Your task to perform on an android device: Open Wikipedia Image 0: 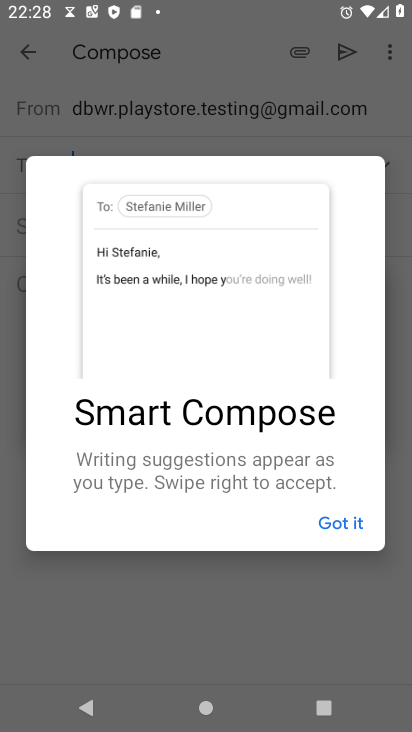
Step 0: press home button
Your task to perform on an android device: Open Wikipedia Image 1: 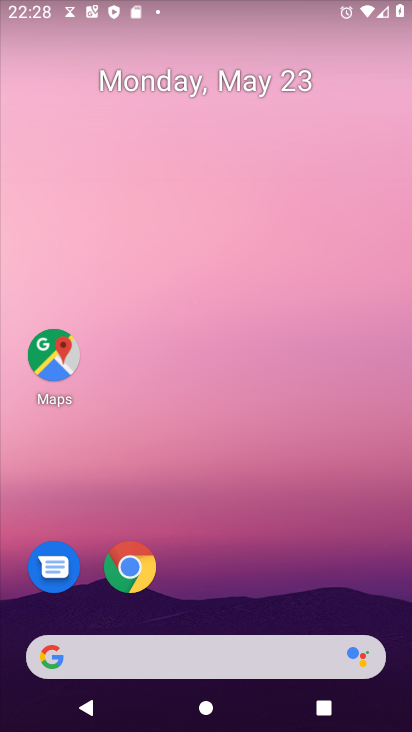
Step 1: click (128, 553)
Your task to perform on an android device: Open Wikipedia Image 2: 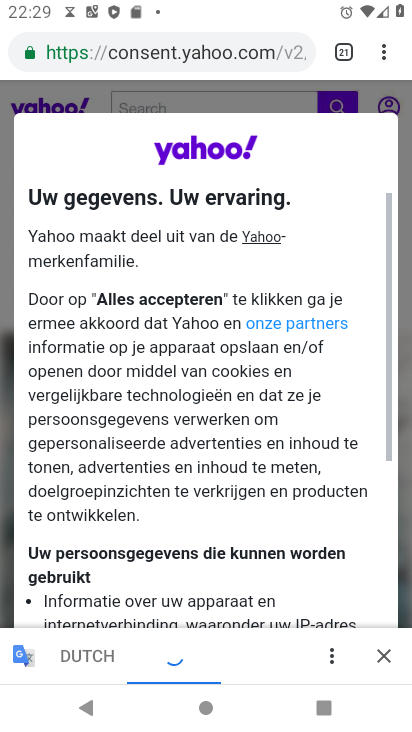
Step 2: click (381, 52)
Your task to perform on an android device: Open Wikipedia Image 3: 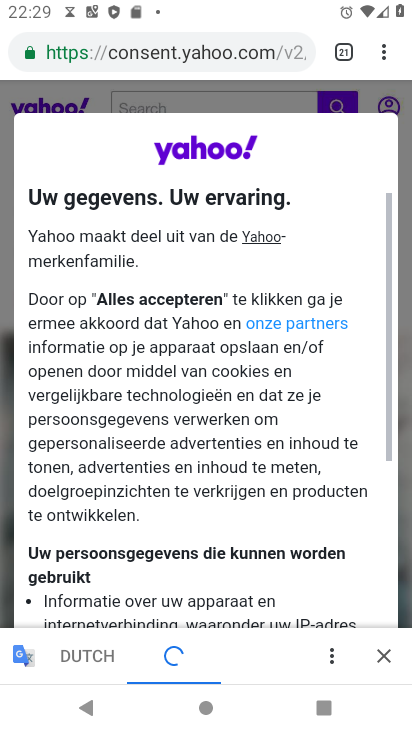
Step 3: click (402, 42)
Your task to perform on an android device: Open Wikipedia Image 4: 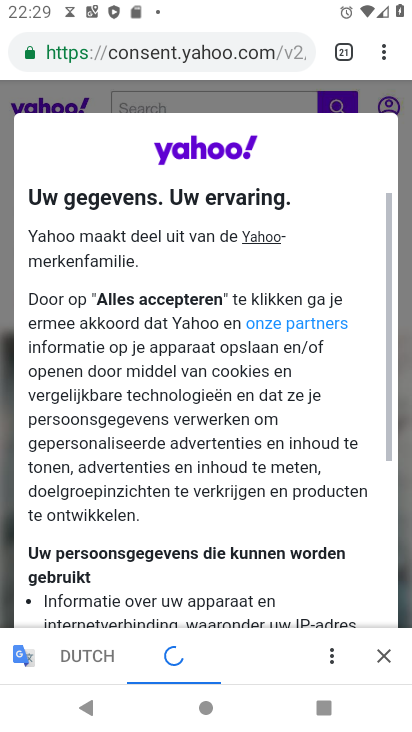
Step 4: click (376, 64)
Your task to perform on an android device: Open Wikipedia Image 5: 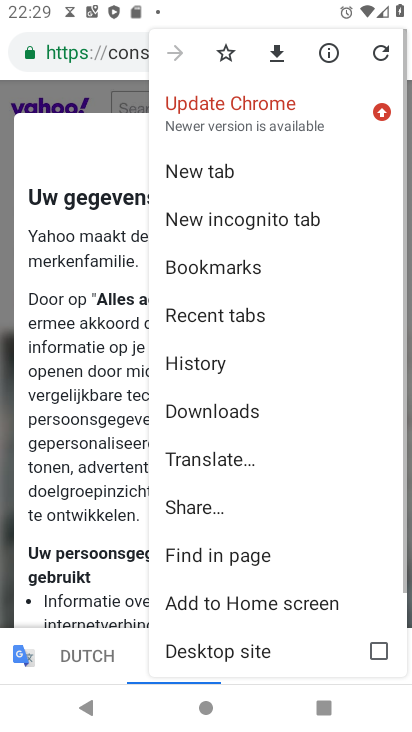
Step 5: click (234, 187)
Your task to perform on an android device: Open Wikipedia Image 6: 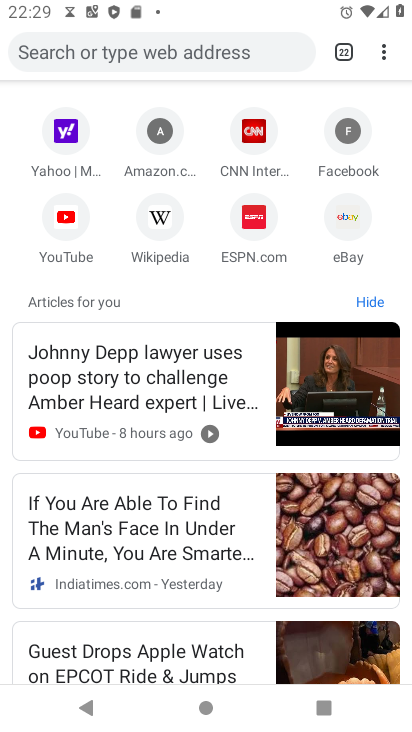
Step 6: click (147, 206)
Your task to perform on an android device: Open Wikipedia Image 7: 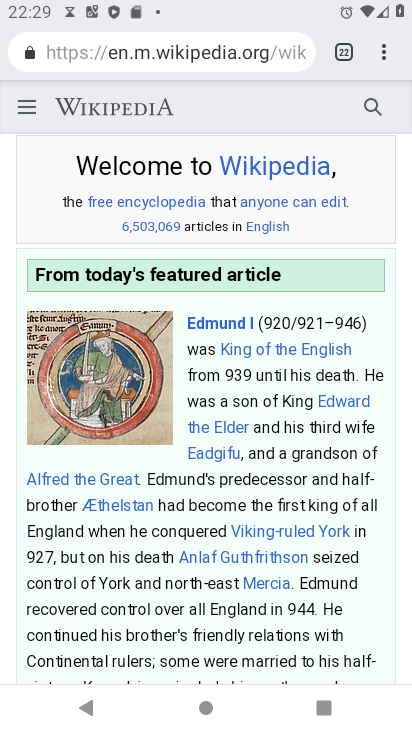
Step 7: task complete